Your task to perform on an android device: What's the latest video from GameXplain? Image 0: 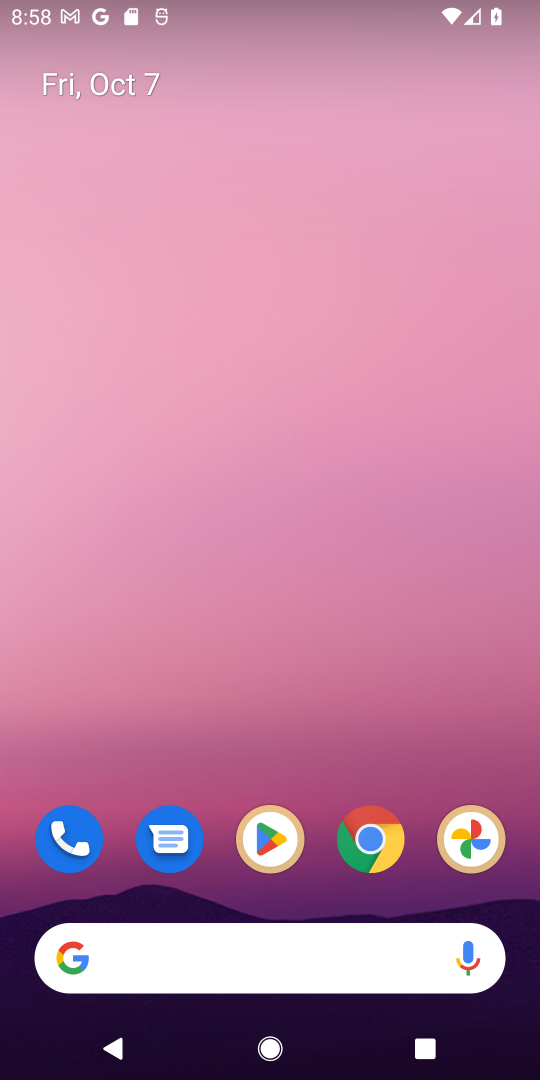
Step 0: click (360, 838)
Your task to perform on an android device: What's the latest video from GameXplain? Image 1: 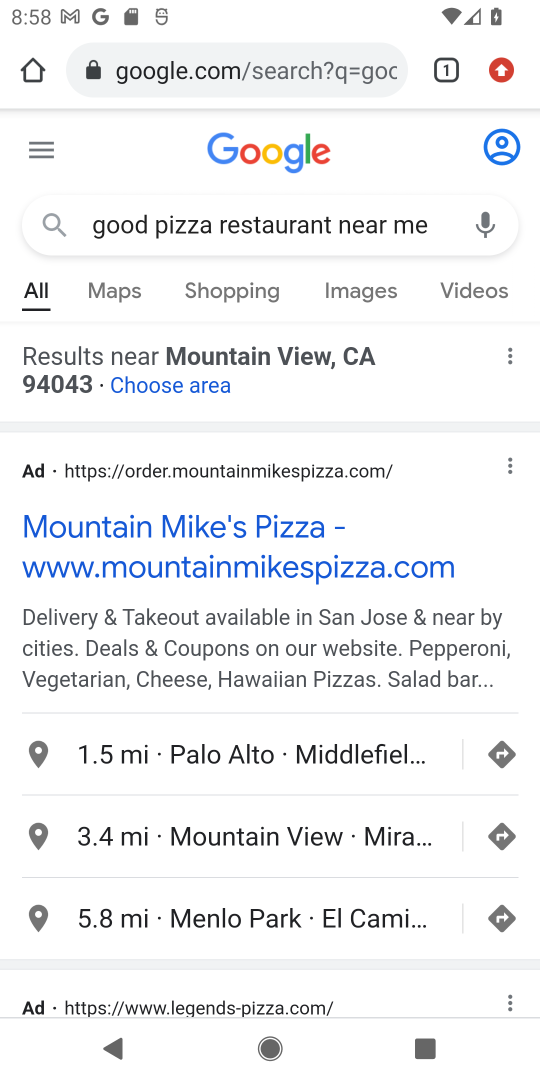
Step 1: click (235, 75)
Your task to perform on an android device: What's the latest video from GameXplain? Image 2: 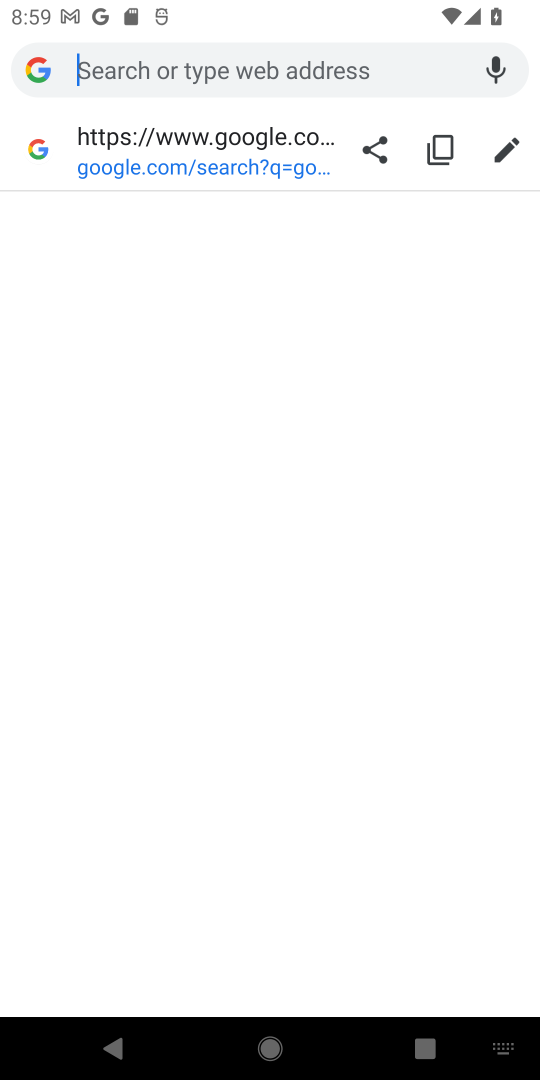
Step 2: type "gamexplain"
Your task to perform on an android device: What's the latest video from GameXplain? Image 3: 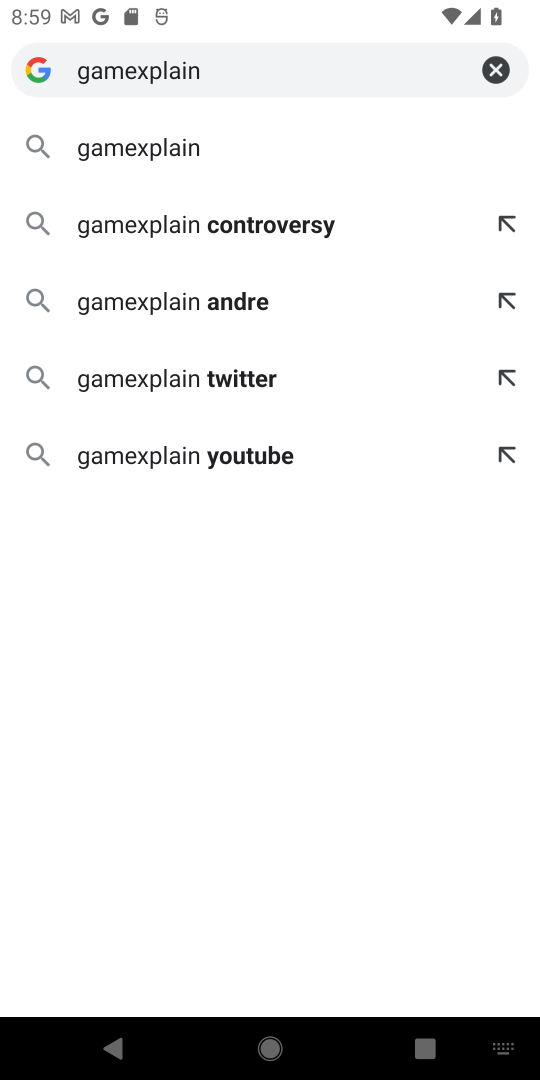
Step 3: click (120, 152)
Your task to perform on an android device: What's the latest video from GameXplain? Image 4: 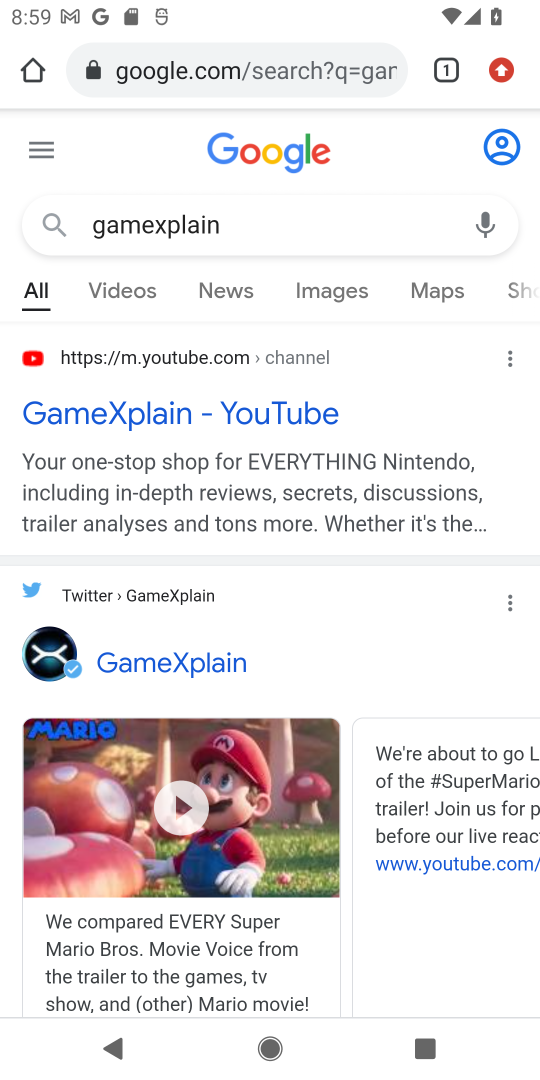
Step 4: click (127, 287)
Your task to perform on an android device: What's the latest video from GameXplain? Image 5: 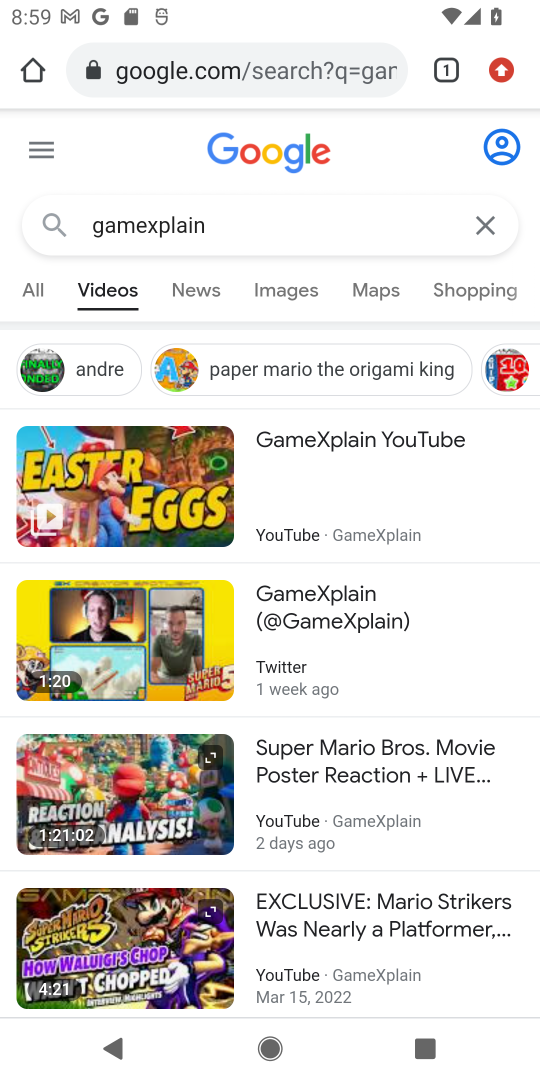
Step 5: drag from (305, 513) to (305, 174)
Your task to perform on an android device: What's the latest video from GameXplain? Image 6: 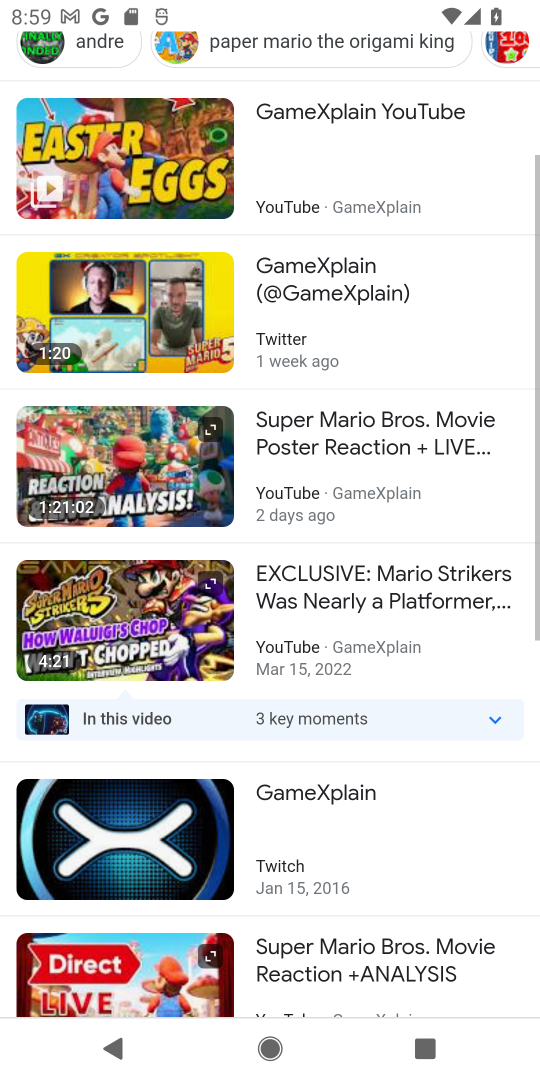
Step 6: drag from (192, 634) to (199, 438)
Your task to perform on an android device: What's the latest video from GameXplain? Image 7: 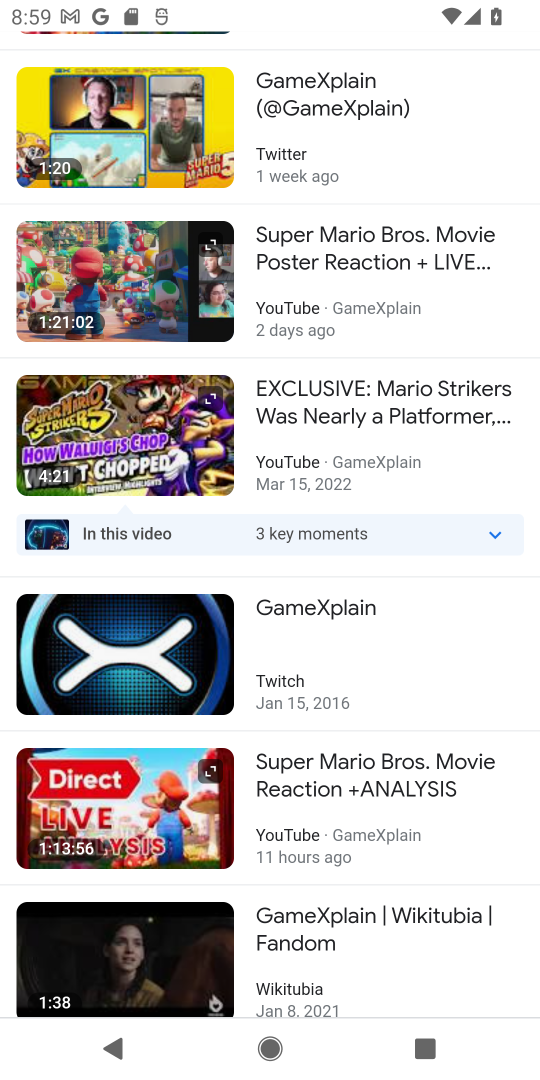
Step 7: drag from (369, 681) to (369, 400)
Your task to perform on an android device: What's the latest video from GameXplain? Image 8: 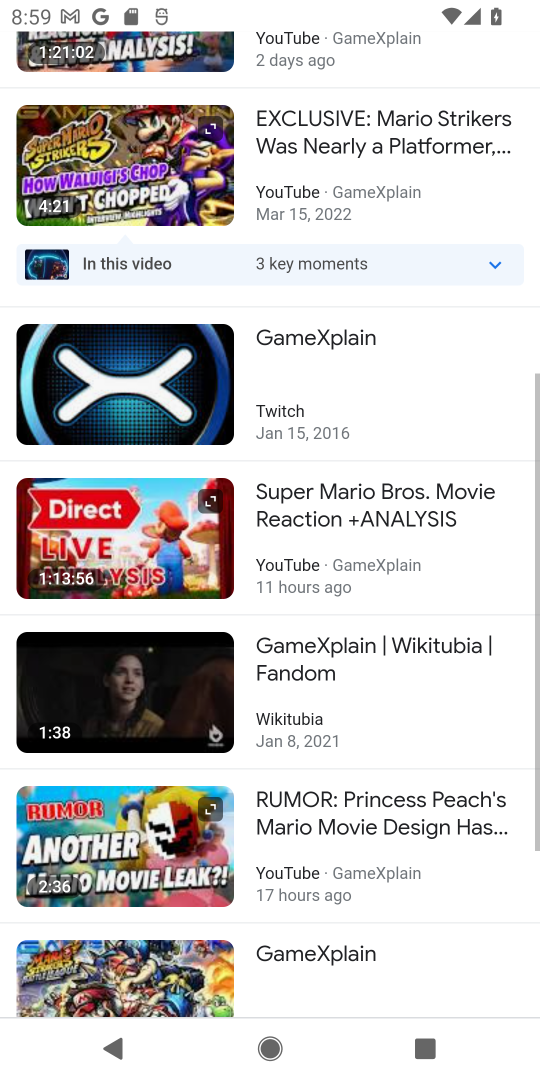
Step 8: drag from (355, 723) to (363, 428)
Your task to perform on an android device: What's the latest video from GameXplain? Image 9: 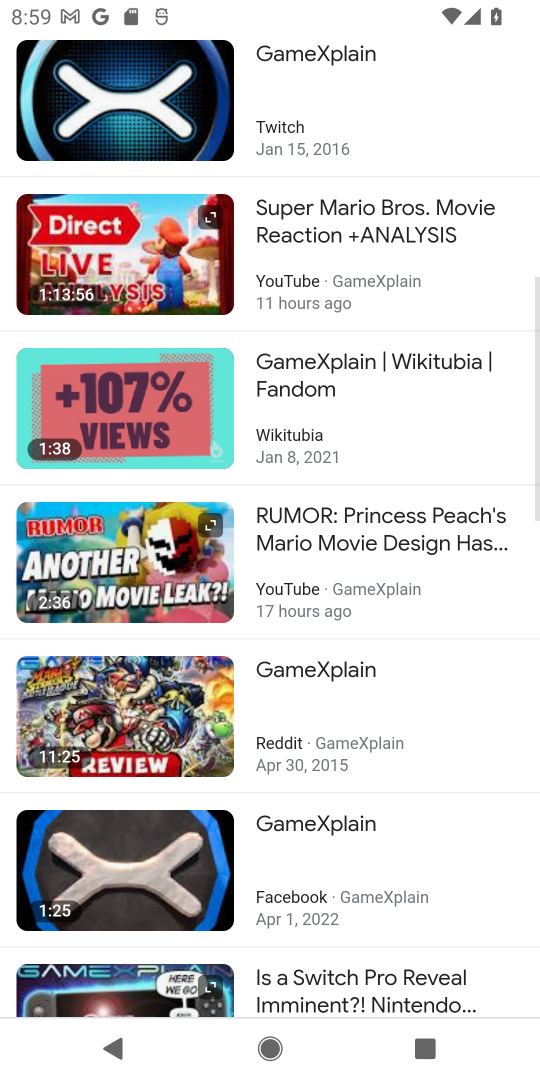
Step 9: drag from (307, 775) to (338, 532)
Your task to perform on an android device: What's the latest video from GameXplain? Image 10: 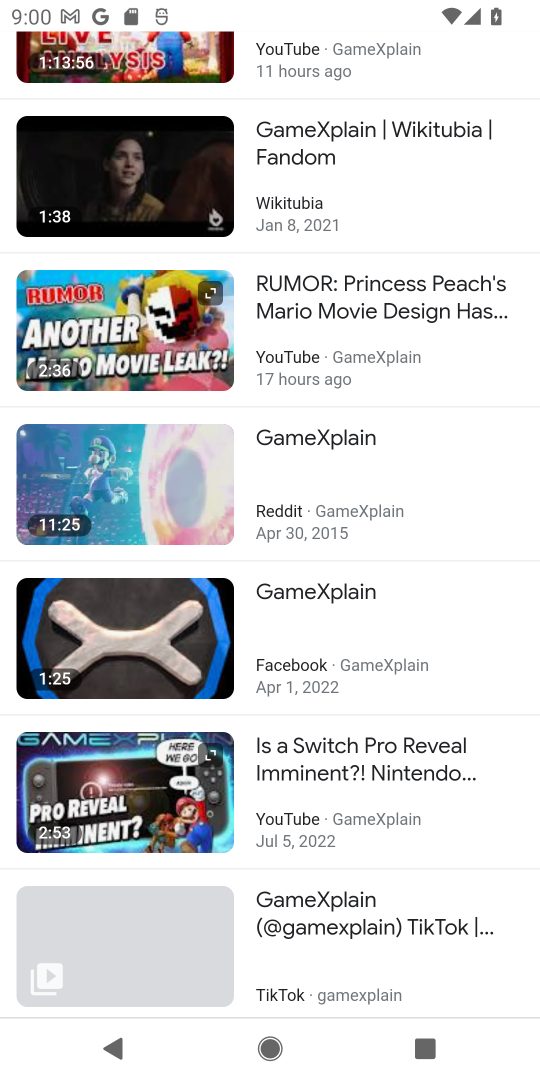
Step 10: drag from (405, 835) to (411, 394)
Your task to perform on an android device: What's the latest video from GameXplain? Image 11: 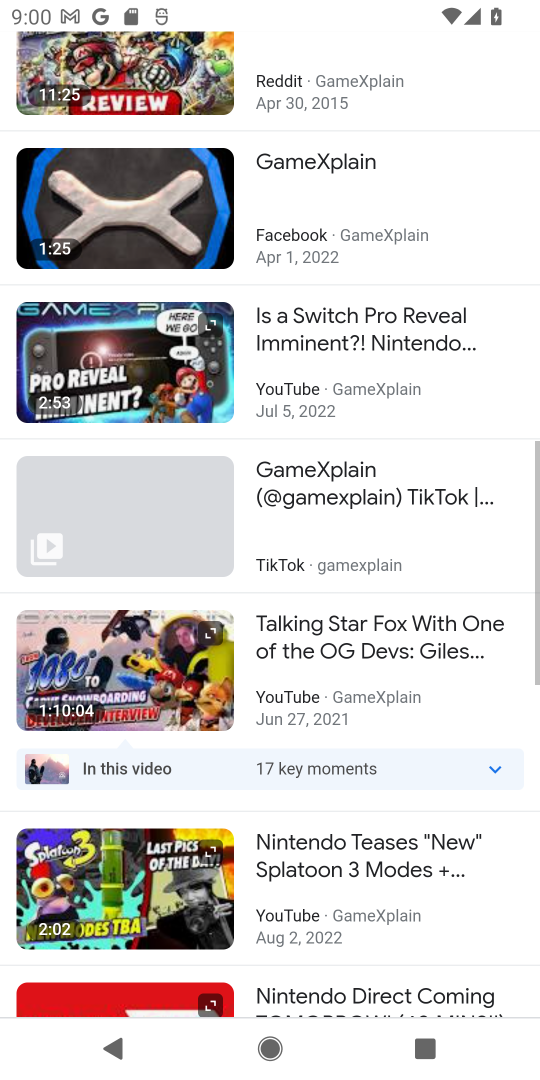
Step 11: drag from (329, 490) to (340, 140)
Your task to perform on an android device: What's the latest video from GameXplain? Image 12: 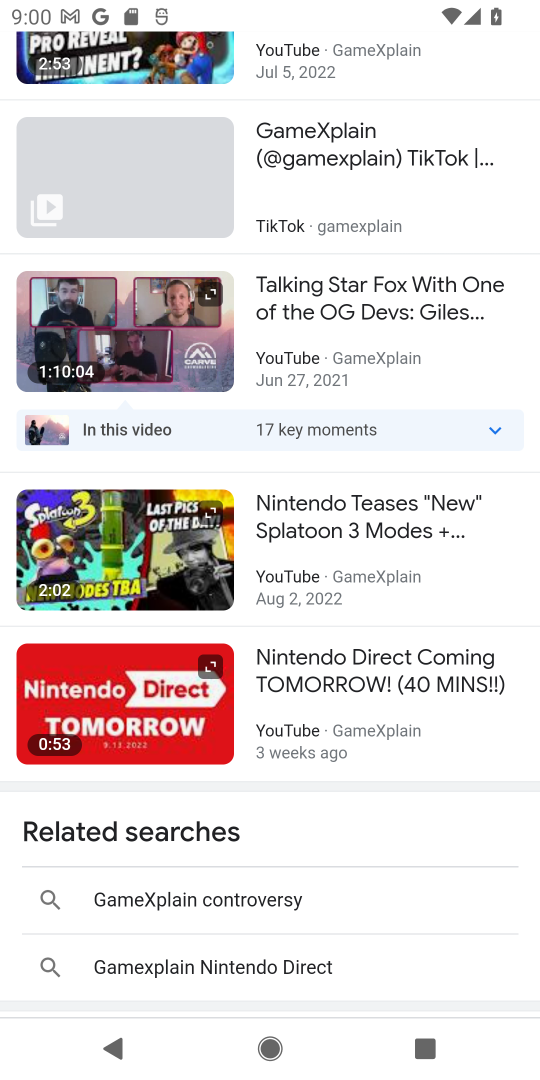
Step 12: drag from (443, 242) to (445, 782)
Your task to perform on an android device: What's the latest video from GameXplain? Image 13: 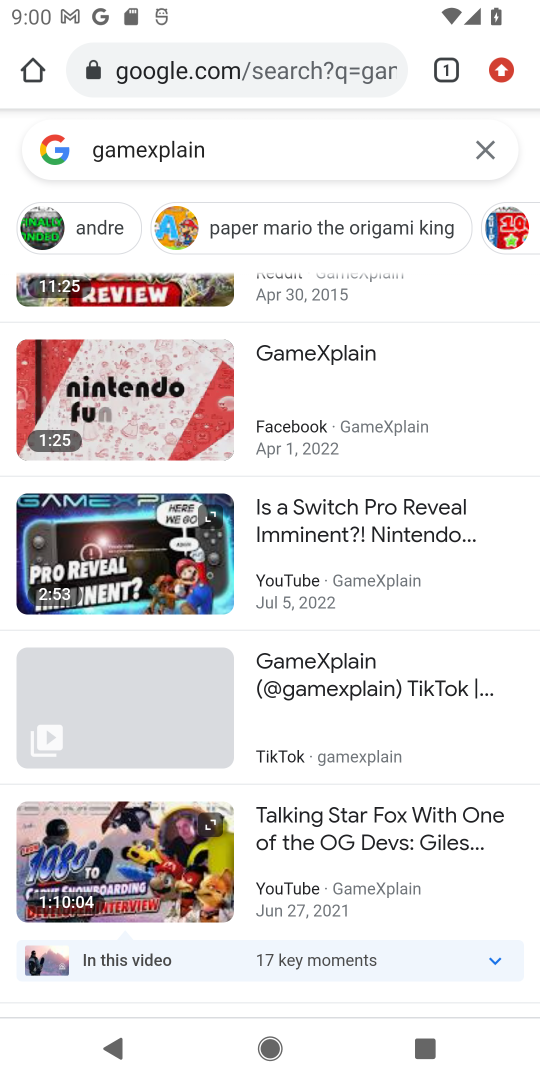
Step 13: click (213, 661)
Your task to perform on an android device: What's the latest video from GameXplain? Image 14: 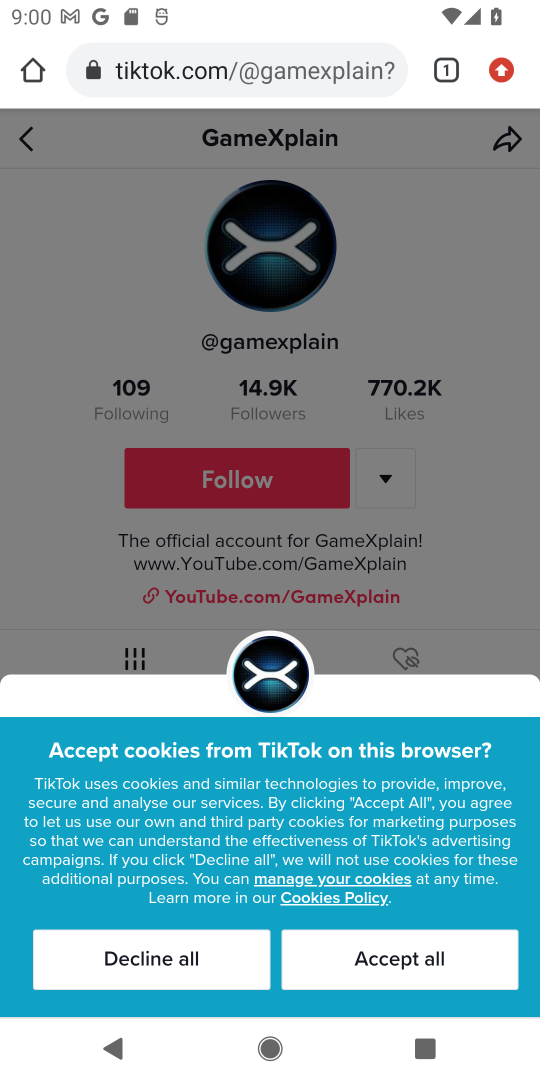
Step 14: click (427, 951)
Your task to perform on an android device: What's the latest video from GameXplain? Image 15: 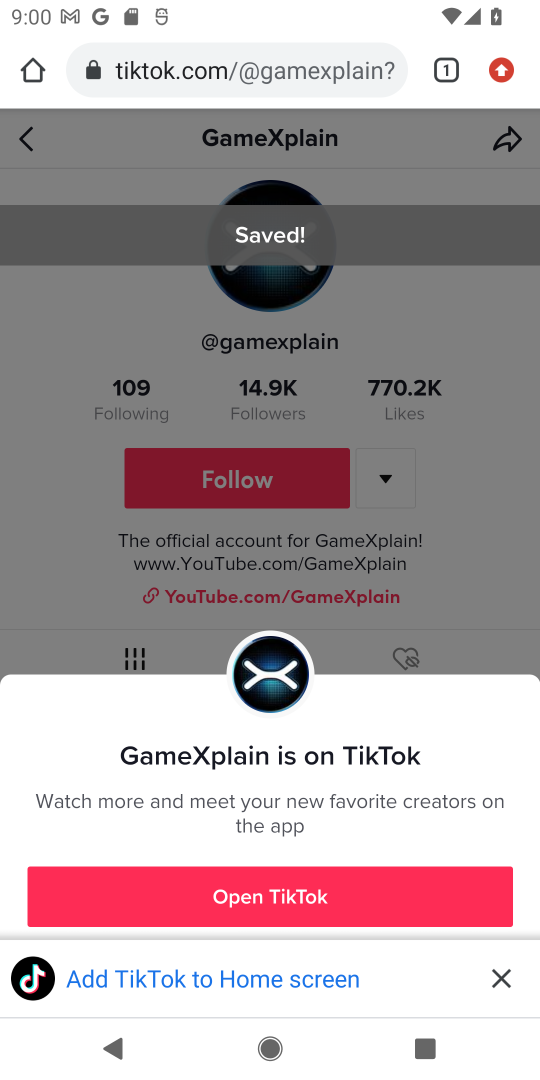
Step 15: click (503, 974)
Your task to perform on an android device: What's the latest video from GameXplain? Image 16: 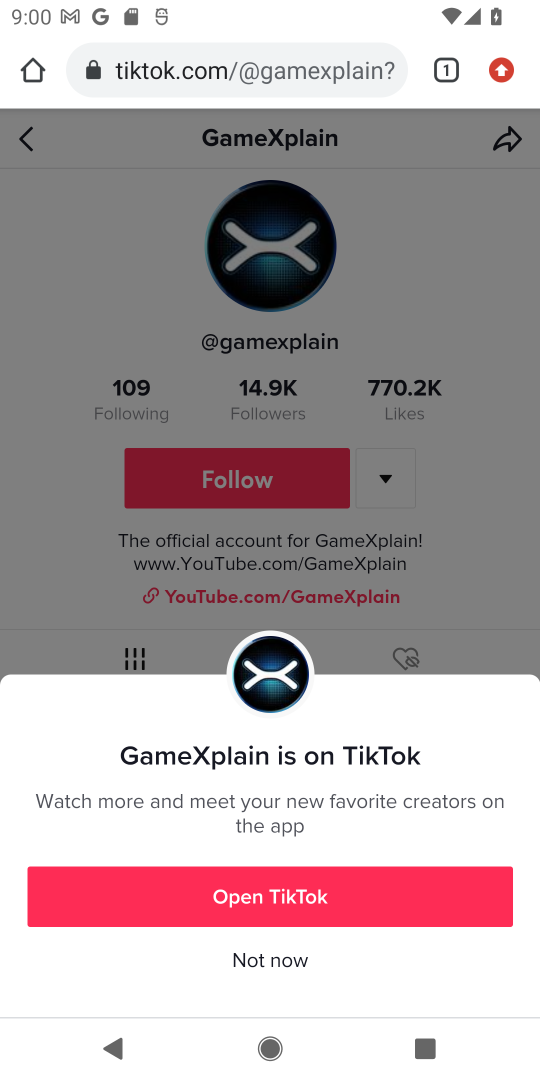
Step 16: drag from (76, 525) to (84, 211)
Your task to perform on an android device: What's the latest video from GameXplain? Image 17: 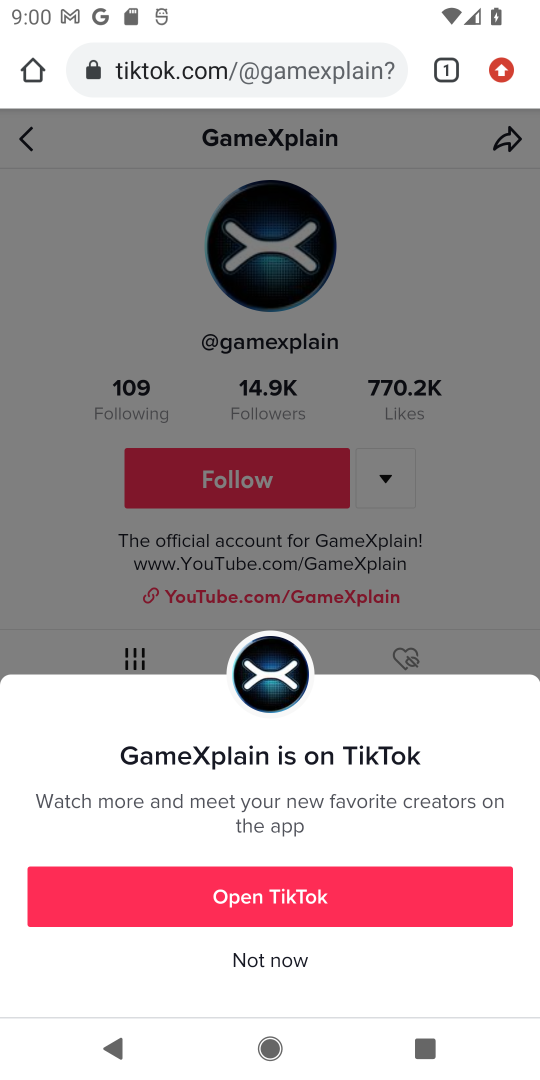
Step 17: drag from (88, 571) to (143, 162)
Your task to perform on an android device: What's the latest video from GameXplain? Image 18: 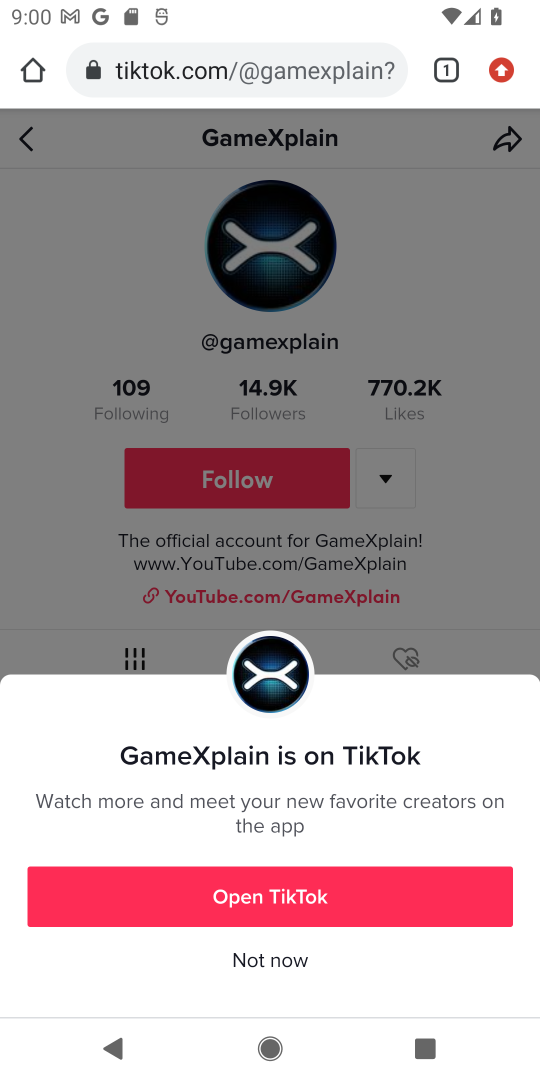
Step 18: drag from (448, 484) to (455, 764)
Your task to perform on an android device: What's the latest video from GameXplain? Image 19: 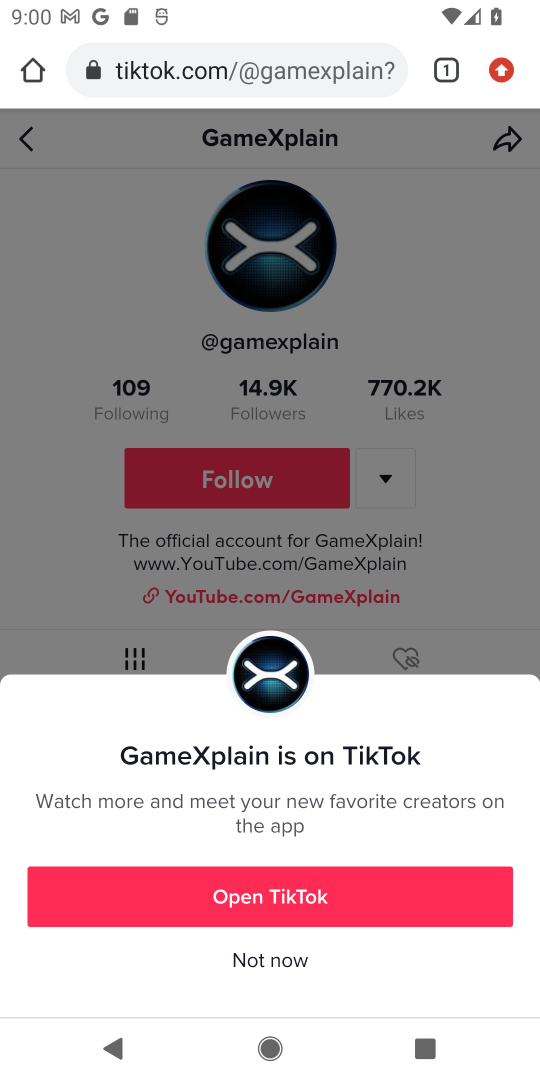
Step 19: click (292, 961)
Your task to perform on an android device: What's the latest video from GameXplain? Image 20: 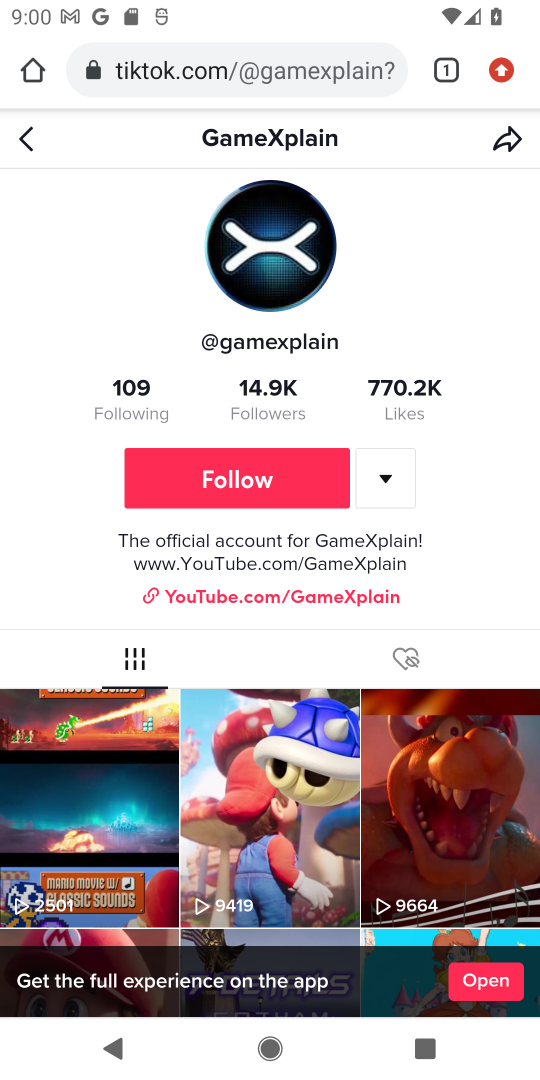
Step 20: drag from (277, 748) to (388, 258)
Your task to perform on an android device: What's the latest video from GameXplain? Image 21: 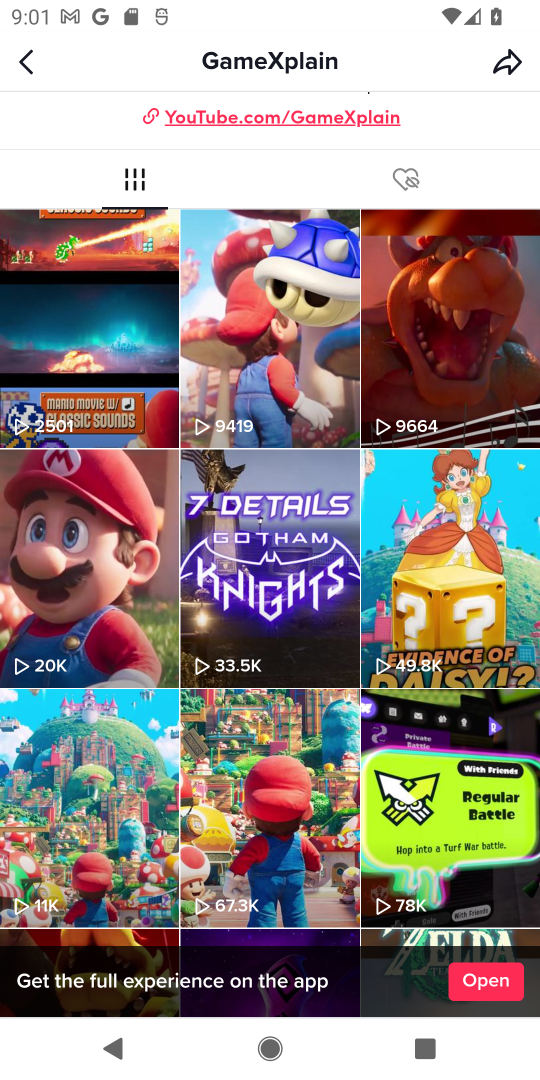
Step 21: drag from (230, 723) to (222, 348)
Your task to perform on an android device: What's the latest video from GameXplain? Image 22: 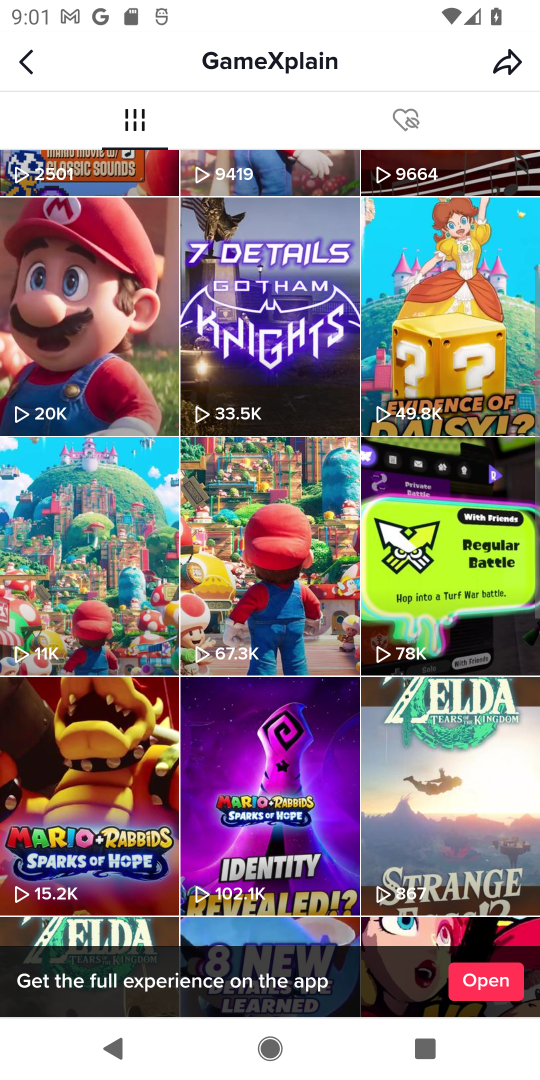
Step 22: drag from (161, 811) to (182, 300)
Your task to perform on an android device: What's the latest video from GameXplain? Image 23: 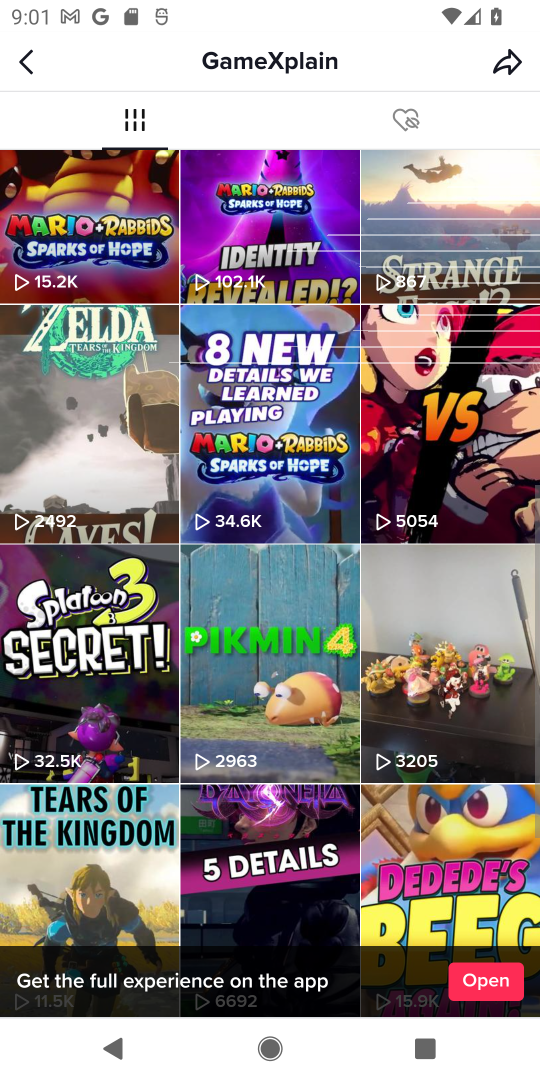
Step 23: drag from (264, 643) to (285, 426)
Your task to perform on an android device: What's the latest video from GameXplain? Image 24: 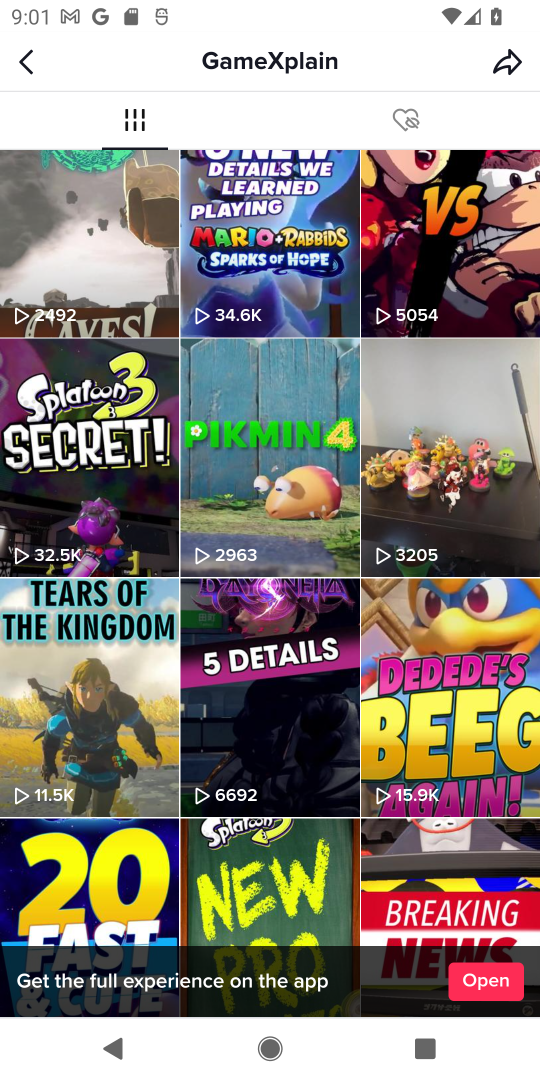
Step 24: drag from (257, 606) to (306, 220)
Your task to perform on an android device: What's the latest video from GameXplain? Image 25: 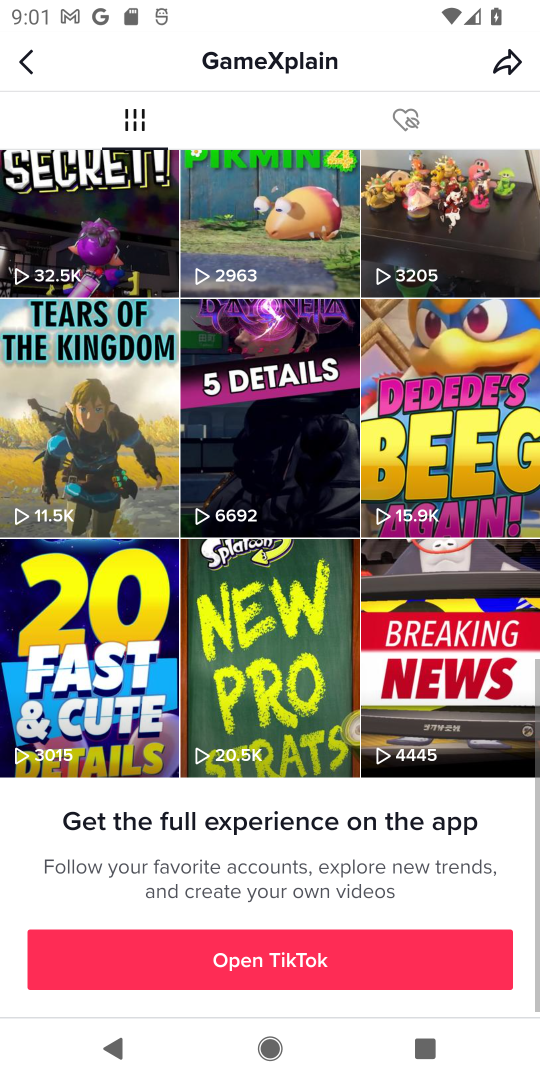
Step 25: drag from (134, 813) to (202, 380)
Your task to perform on an android device: What's the latest video from GameXplain? Image 26: 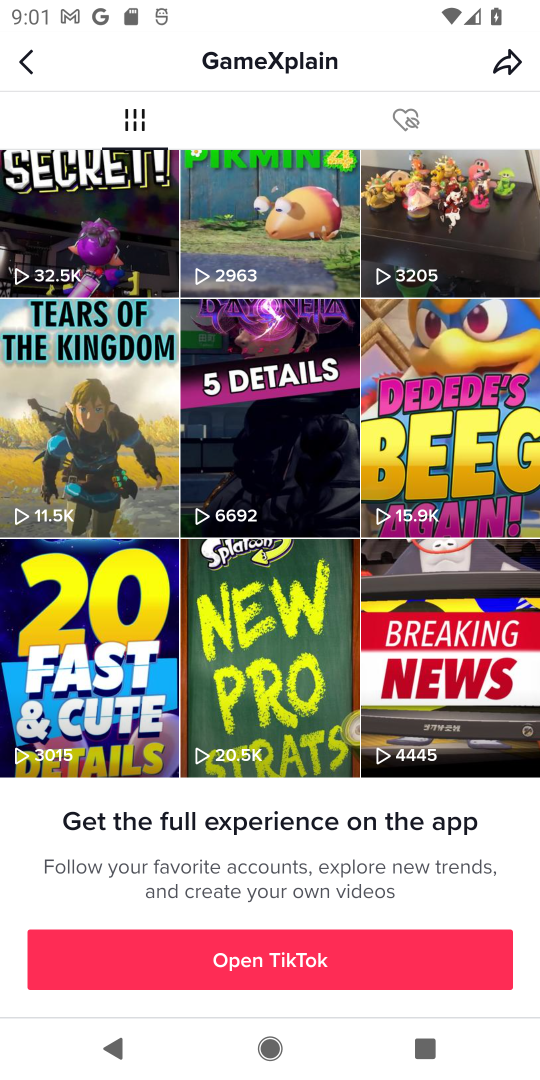
Step 26: click (129, 377)
Your task to perform on an android device: What's the latest video from GameXplain? Image 27: 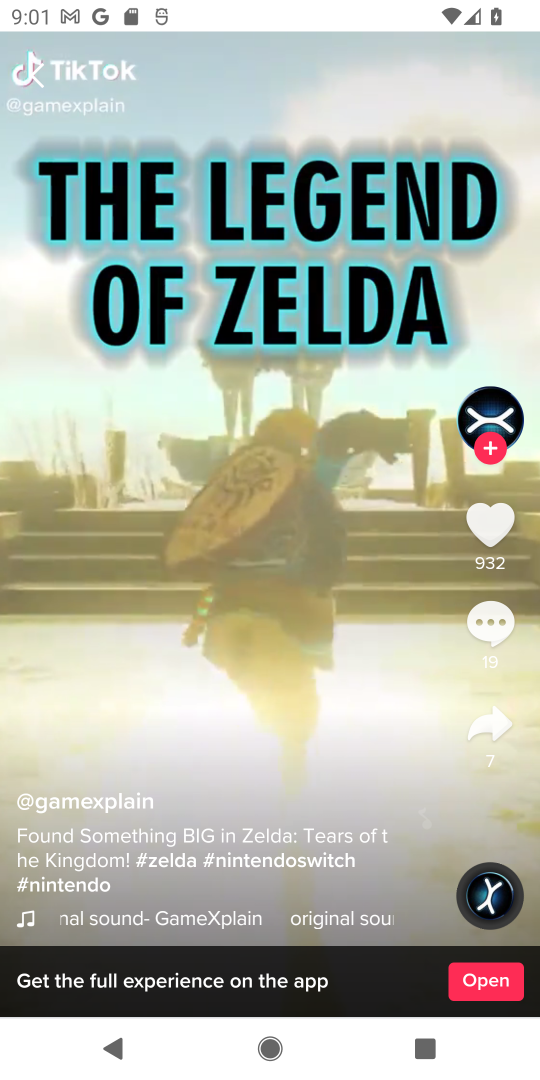
Step 27: task complete